Your task to perform on an android device: change alarm snooze length Image 0: 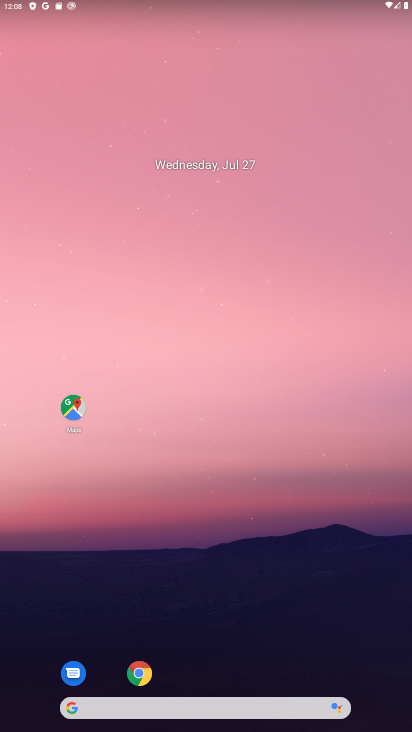
Step 0: drag from (250, 663) to (253, 38)
Your task to perform on an android device: change alarm snooze length Image 1: 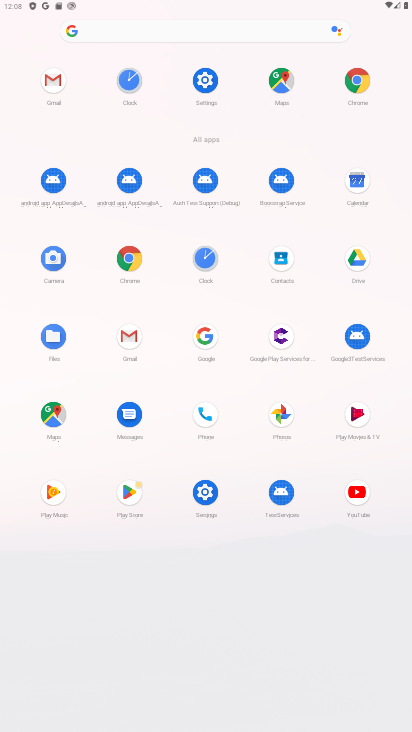
Step 1: click (208, 258)
Your task to perform on an android device: change alarm snooze length Image 2: 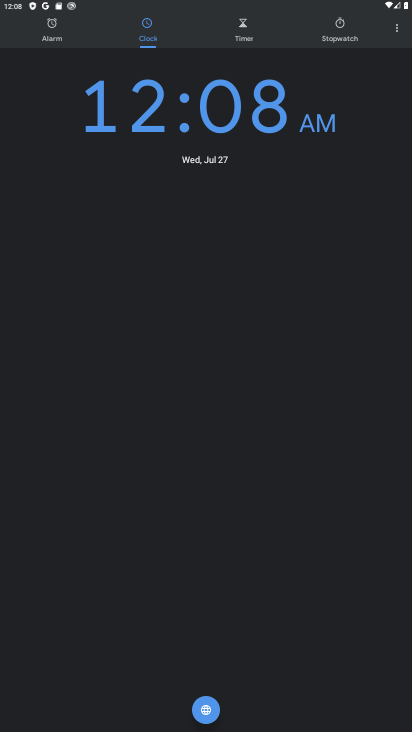
Step 2: click (396, 32)
Your task to perform on an android device: change alarm snooze length Image 3: 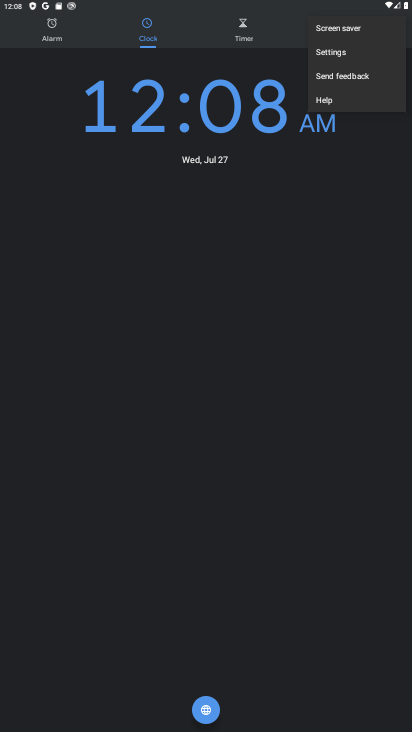
Step 3: click (340, 58)
Your task to perform on an android device: change alarm snooze length Image 4: 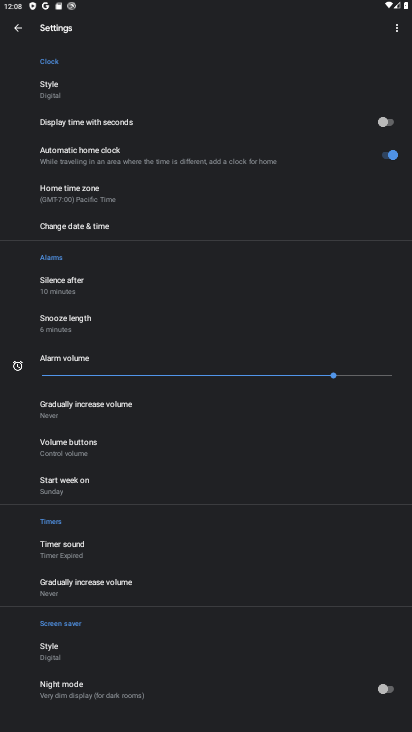
Step 4: click (67, 332)
Your task to perform on an android device: change alarm snooze length Image 5: 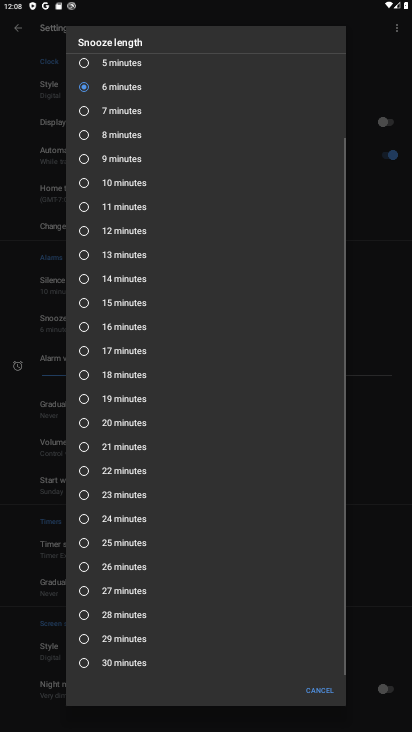
Step 5: click (82, 142)
Your task to perform on an android device: change alarm snooze length Image 6: 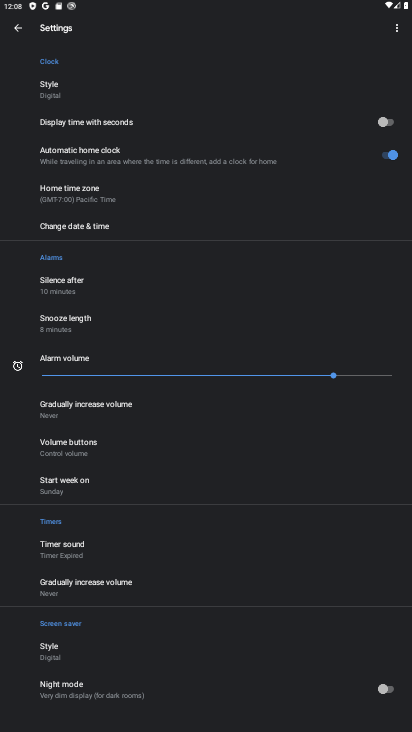
Step 6: task complete